Your task to perform on an android device: check battery use Image 0: 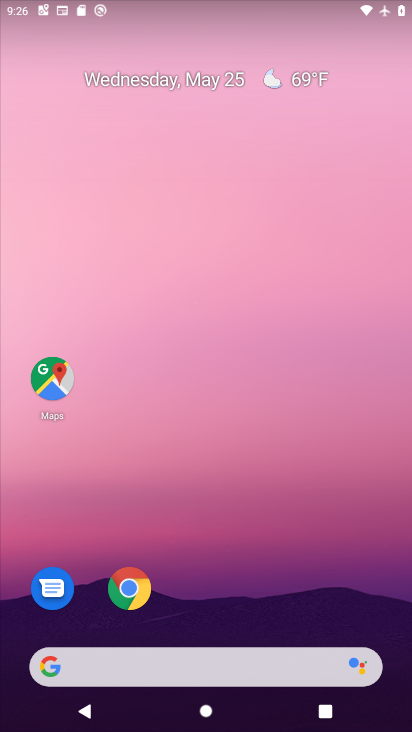
Step 0: drag from (371, 616) to (365, 185)
Your task to perform on an android device: check battery use Image 1: 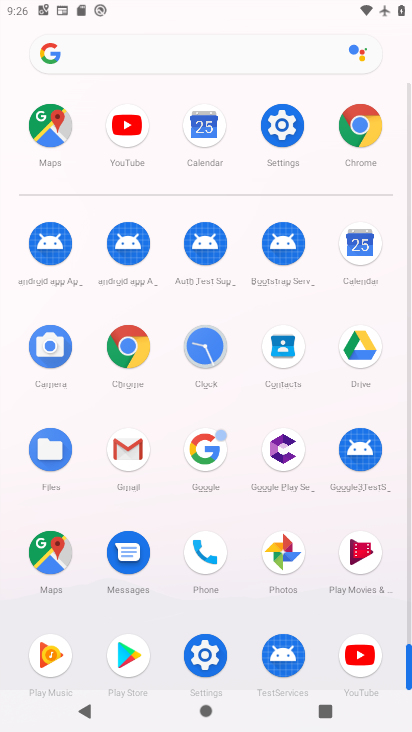
Step 1: click (286, 132)
Your task to perform on an android device: check battery use Image 2: 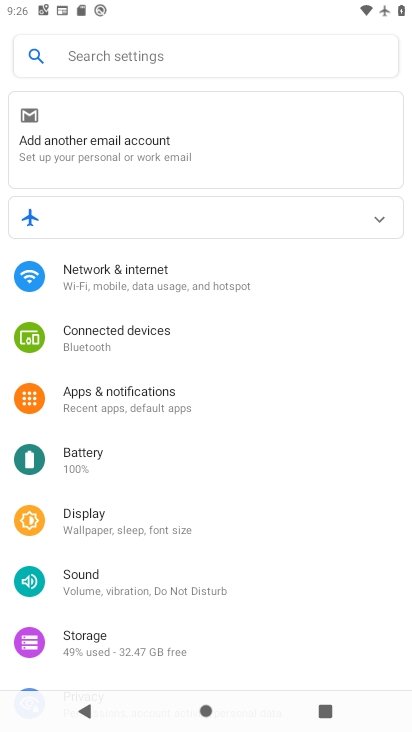
Step 2: click (171, 457)
Your task to perform on an android device: check battery use Image 3: 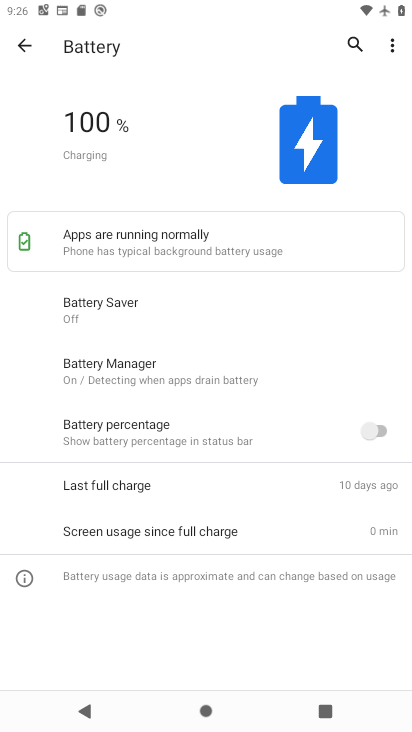
Step 3: click (392, 57)
Your task to perform on an android device: check battery use Image 4: 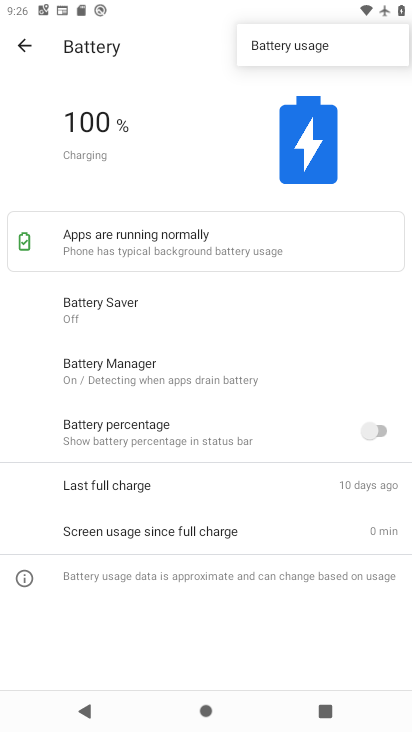
Step 4: click (317, 50)
Your task to perform on an android device: check battery use Image 5: 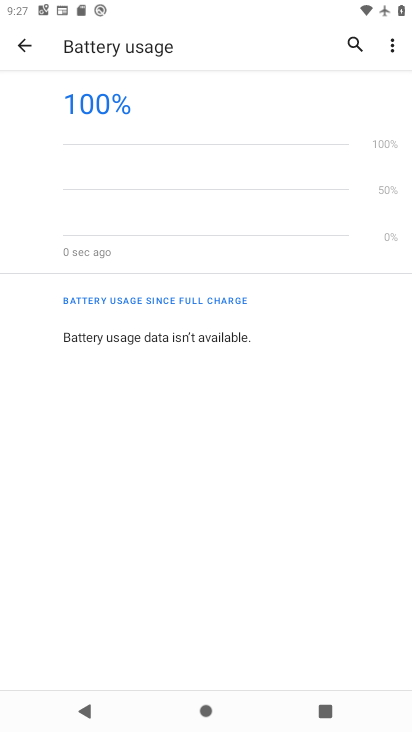
Step 5: task complete